Your task to perform on an android device: delete browsing data in the chrome app Image 0: 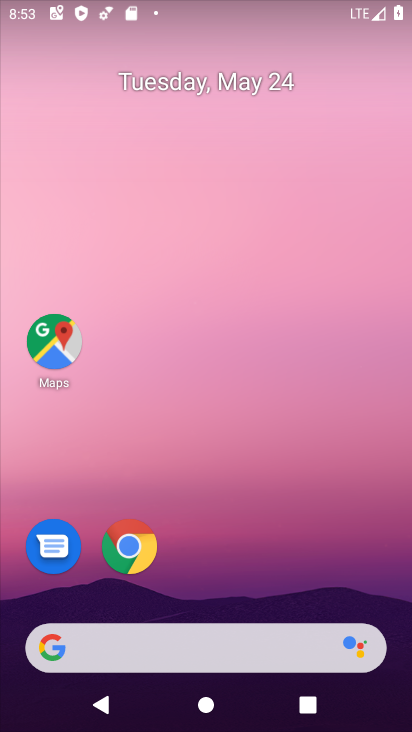
Step 0: click (137, 539)
Your task to perform on an android device: delete browsing data in the chrome app Image 1: 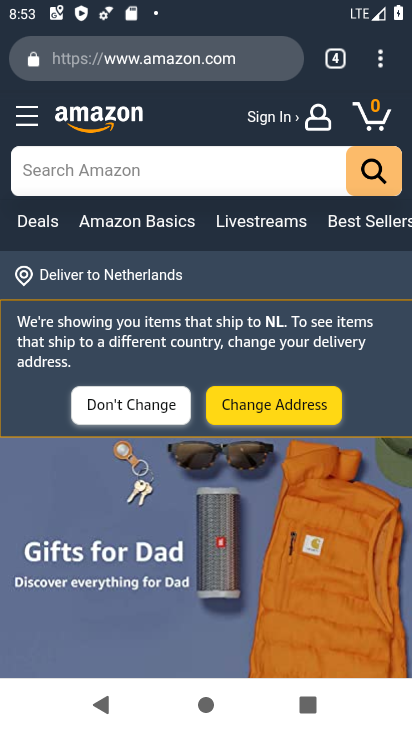
Step 1: click (373, 54)
Your task to perform on an android device: delete browsing data in the chrome app Image 2: 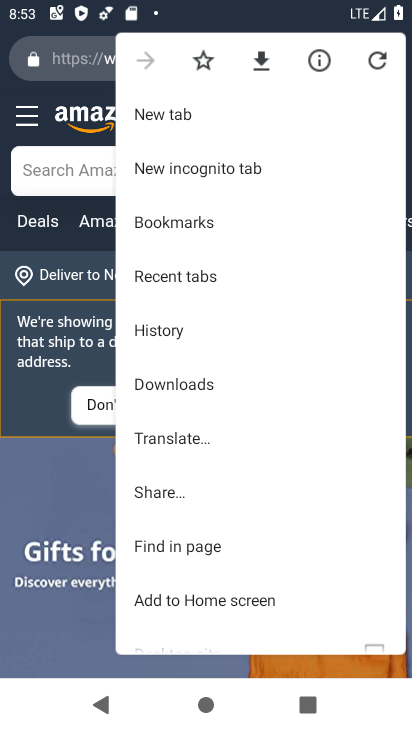
Step 2: click (181, 327)
Your task to perform on an android device: delete browsing data in the chrome app Image 3: 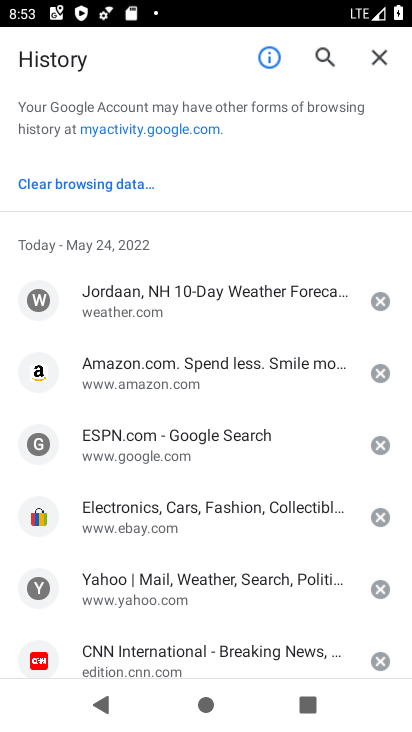
Step 3: click (106, 176)
Your task to perform on an android device: delete browsing data in the chrome app Image 4: 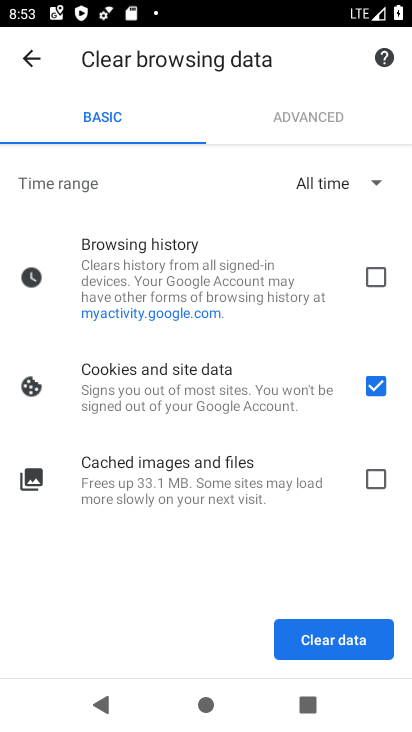
Step 4: click (378, 272)
Your task to perform on an android device: delete browsing data in the chrome app Image 5: 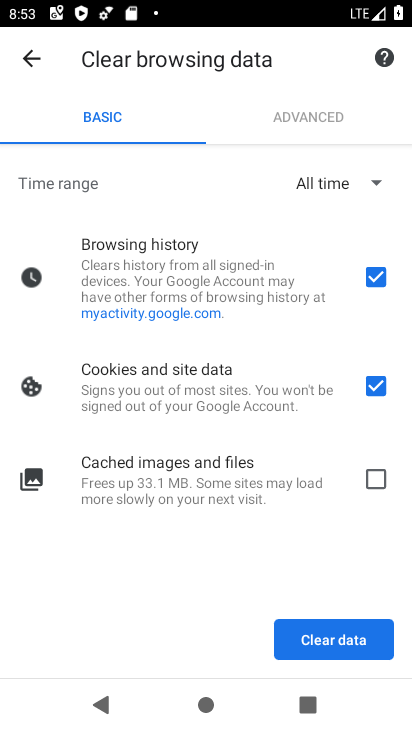
Step 5: click (377, 473)
Your task to perform on an android device: delete browsing data in the chrome app Image 6: 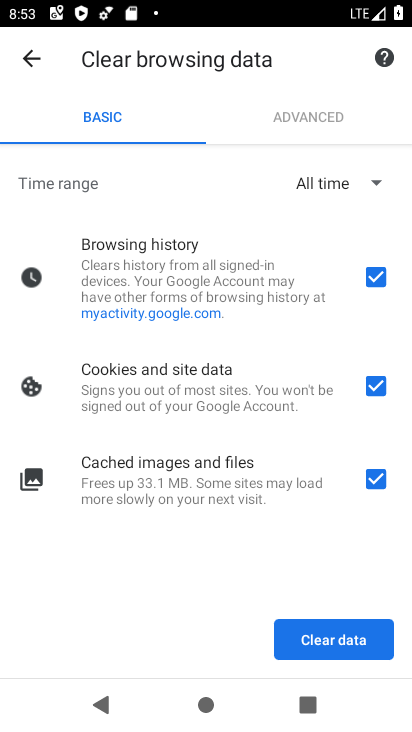
Step 6: click (356, 642)
Your task to perform on an android device: delete browsing data in the chrome app Image 7: 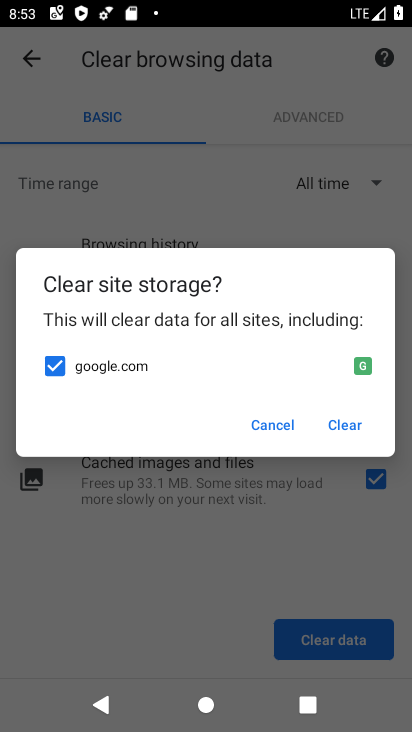
Step 7: click (350, 422)
Your task to perform on an android device: delete browsing data in the chrome app Image 8: 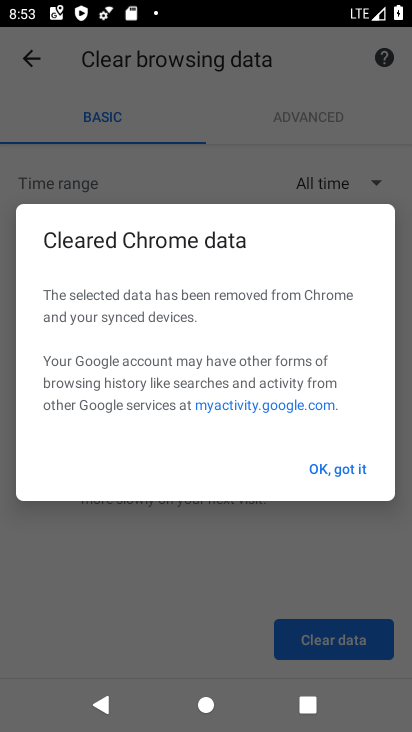
Step 8: click (358, 467)
Your task to perform on an android device: delete browsing data in the chrome app Image 9: 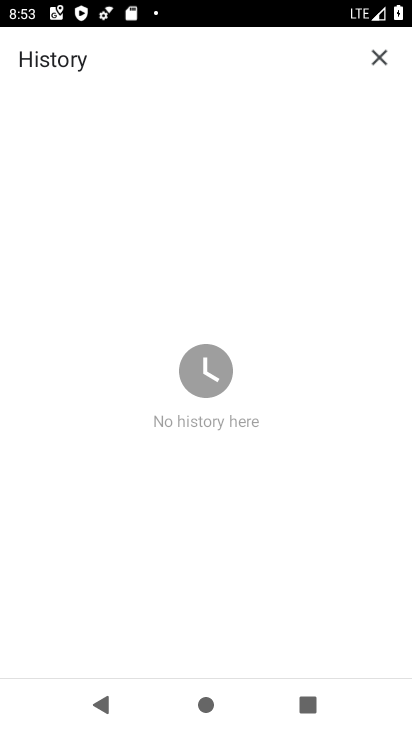
Step 9: task complete